Your task to perform on an android device: open app "Google Home" (install if not already installed) Image 0: 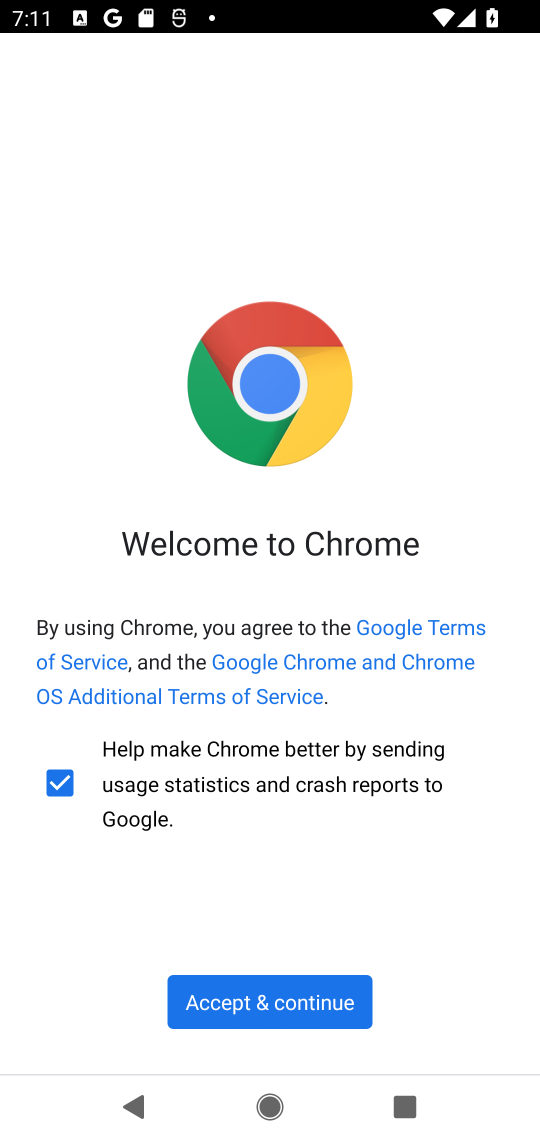
Step 0: press home button
Your task to perform on an android device: open app "Google Home" (install if not already installed) Image 1: 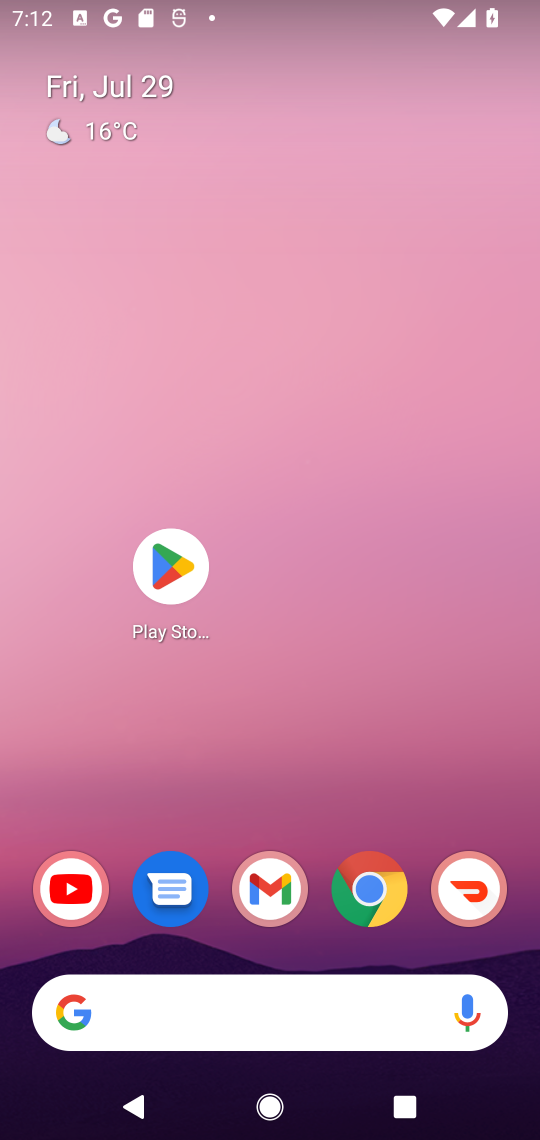
Step 1: click (172, 562)
Your task to perform on an android device: open app "Google Home" (install if not already installed) Image 2: 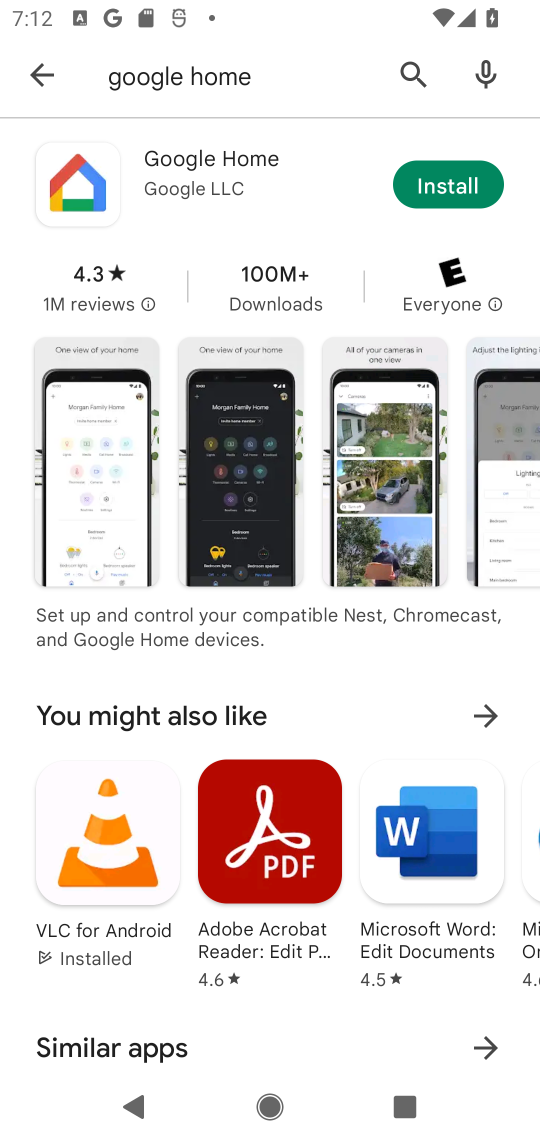
Step 2: click (434, 186)
Your task to perform on an android device: open app "Google Home" (install if not already installed) Image 3: 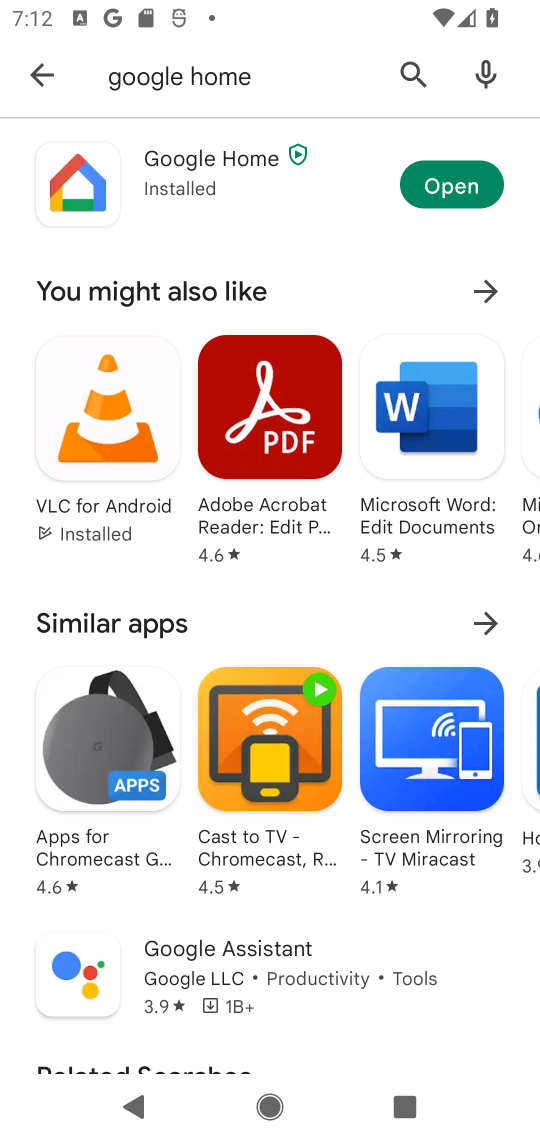
Step 3: click (436, 175)
Your task to perform on an android device: open app "Google Home" (install if not already installed) Image 4: 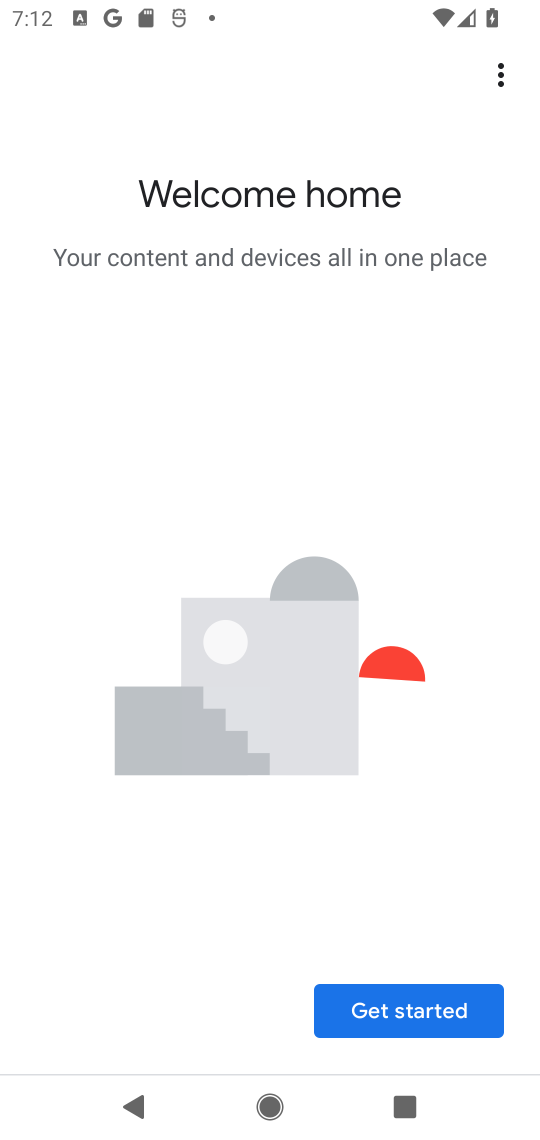
Step 4: task complete